Your task to perform on an android device: What's the price of the TCL TV? Image 0: 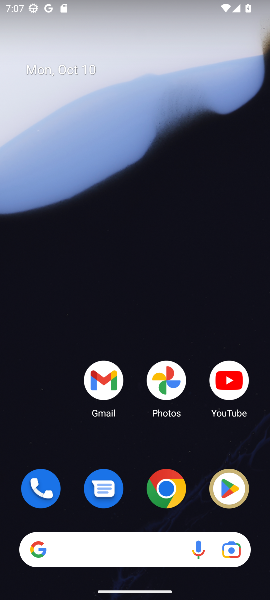
Step 0: drag from (73, 445) to (52, 42)
Your task to perform on an android device: What's the price of the TCL TV? Image 1: 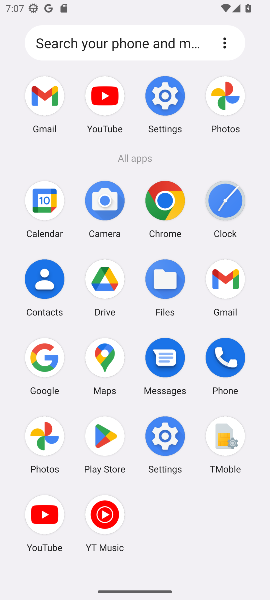
Step 1: click (168, 206)
Your task to perform on an android device: What's the price of the TCL TV? Image 2: 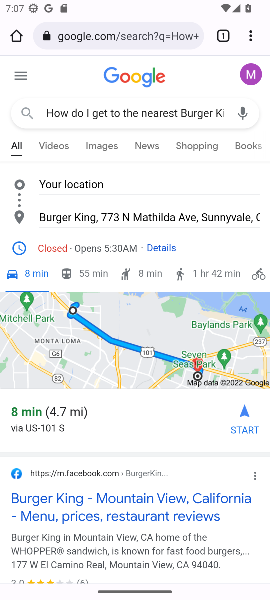
Step 2: click (153, 39)
Your task to perform on an android device: What's the price of the TCL TV? Image 3: 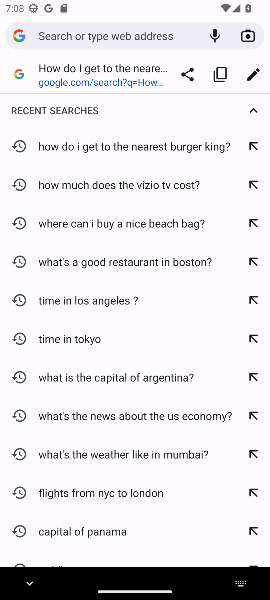
Step 3: type "What's the price of the TLC TV"
Your task to perform on an android device: What's the price of the TCL TV? Image 4: 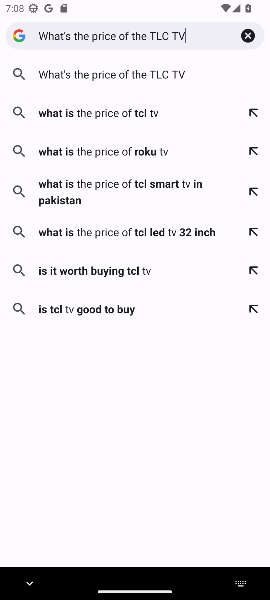
Step 4: type "?"
Your task to perform on an android device: What's the price of the TCL TV? Image 5: 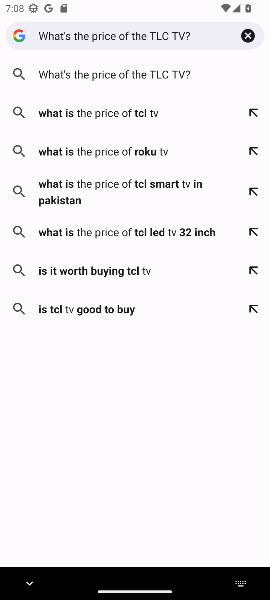
Step 5: press enter
Your task to perform on an android device: What's the price of the TCL TV? Image 6: 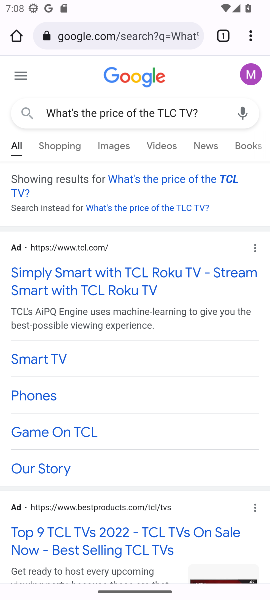
Step 6: drag from (139, 423) to (134, 0)
Your task to perform on an android device: What's the price of the TCL TV? Image 7: 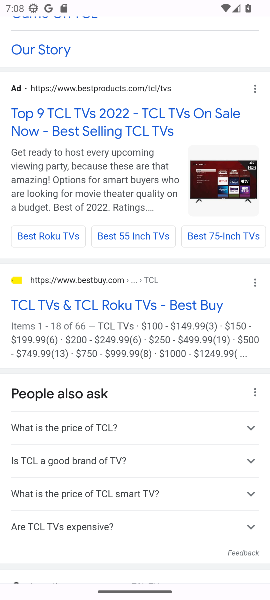
Step 7: click (78, 303)
Your task to perform on an android device: What's the price of the TCL TV? Image 8: 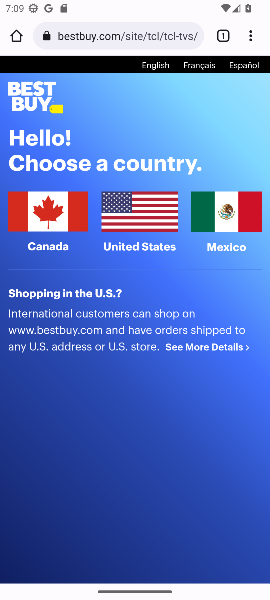
Step 8: click (53, 215)
Your task to perform on an android device: What's the price of the TCL TV? Image 9: 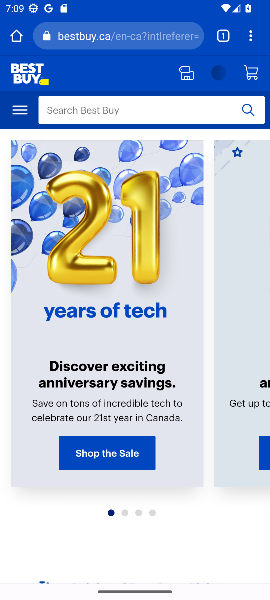
Step 9: drag from (132, 390) to (127, 78)
Your task to perform on an android device: What's the price of the TCL TV? Image 10: 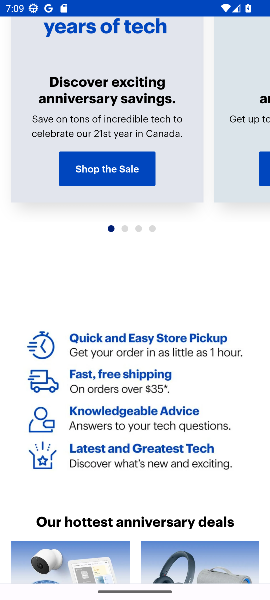
Step 10: drag from (99, 487) to (139, 60)
Your task to perform on an android device: What's the price of the TCL TV? Image 11: 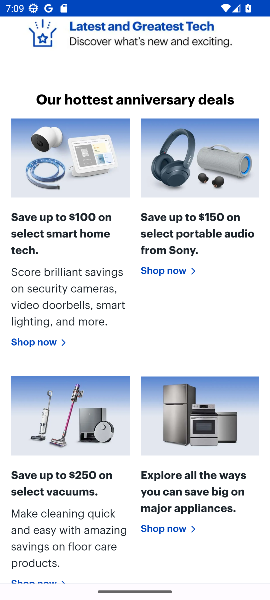
Step 11: drag from (159, 376) to (168, 280)
Your task to perform on an android device: What's the price of the TCL TV? Image 12: 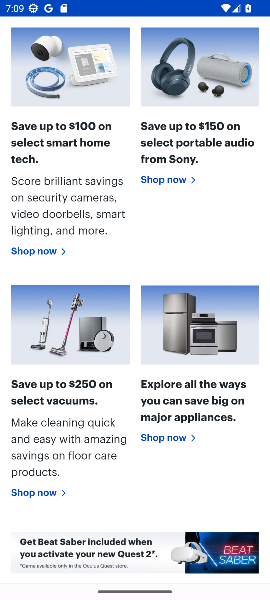
Step 12: drag from (168, 280) to (191, 569)
Your task to perform on an android device: What's the price of the TCL TV? Image 13: 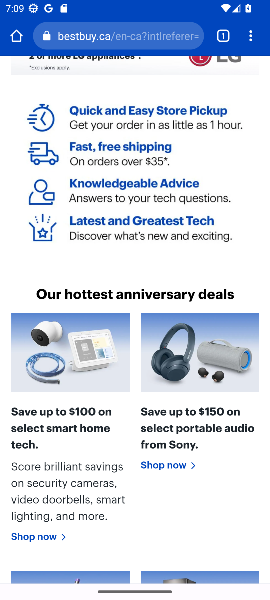
Step 13: drag from (135, 182) to (142, 533)
Your task to perform on an android device: What's the price of the TCL TV? Image 14: 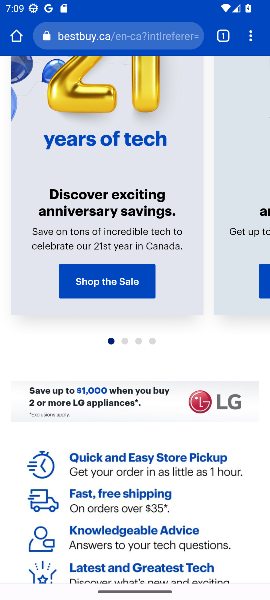
Step 14: drag from (150, 163) to (134, 521)
Your task to perform on an android device: What's the price of the TCL TV? Image 15: 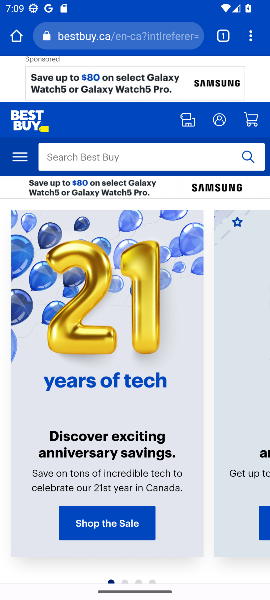
Step 15: press back button
Your task to perform on an android device: What's the price of the TCL TV? Image 16: 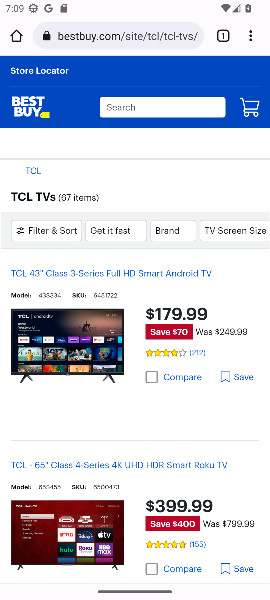
Step 16: press back button
Your task to perform on an android device: What's the price of the TCL TV? Image 17: 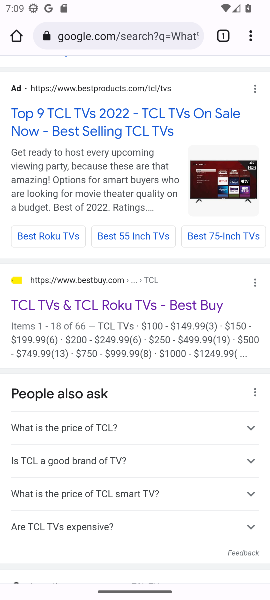
Step 17: click (72, 300)
Your task to perform on an android device: What's the price of the TCL TV? Image 18: 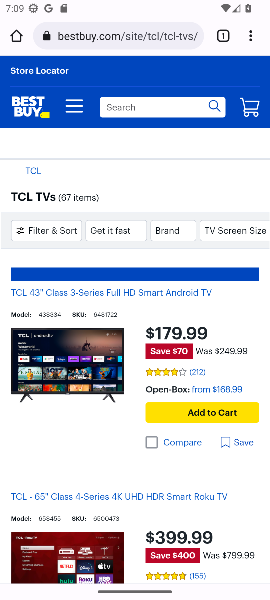
Step 18: task complete